Your task to perform on an android device: Open accessibility settings Image 0: 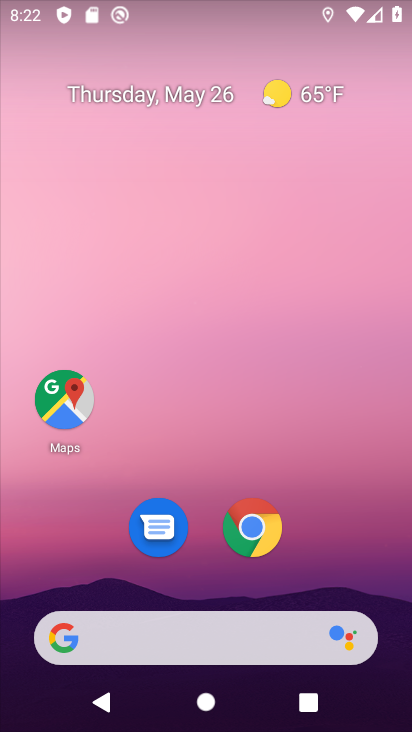
Step 0: drag from (288, 542) to (210, 17)
Your task to perform on an android device: Open accessibility settings Image 1: 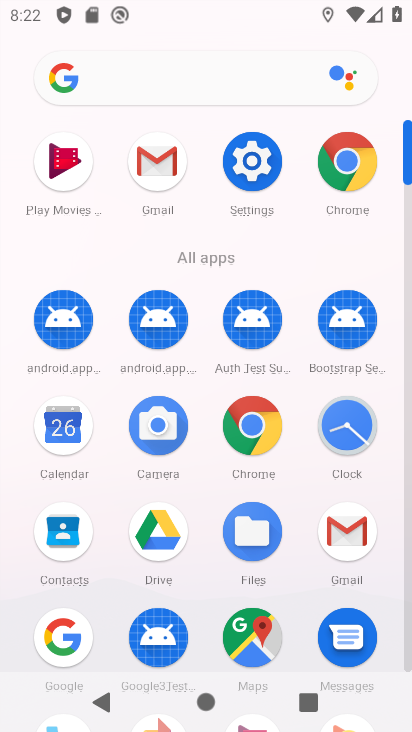
Step 1: click (249, 177)
Your task to perform on an android device: Open accessibility settings Image 2: 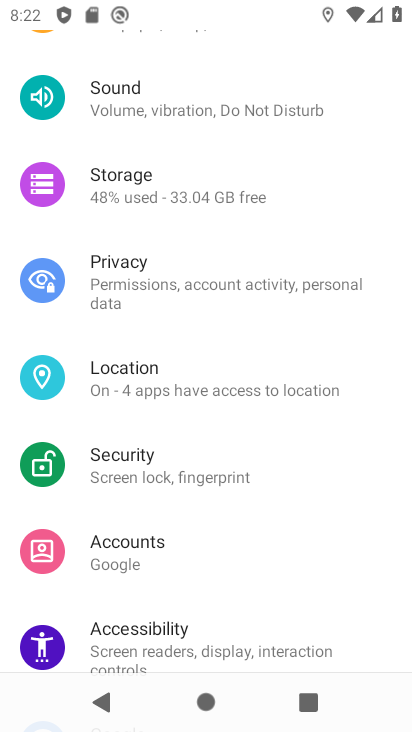
Step 2: drag from (212, 593) to (244, 247)
Your task to perform on an android device: Open accessibility settings Image 3: 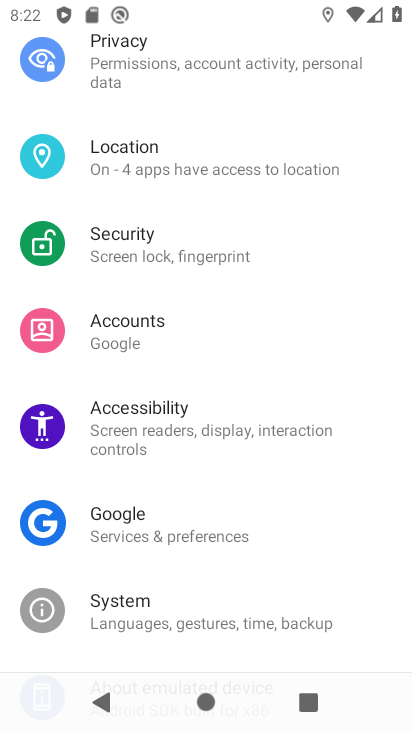
Step 3: click (174, 418)
Your task to perform on an android device: Open accessibility settings Image 4: 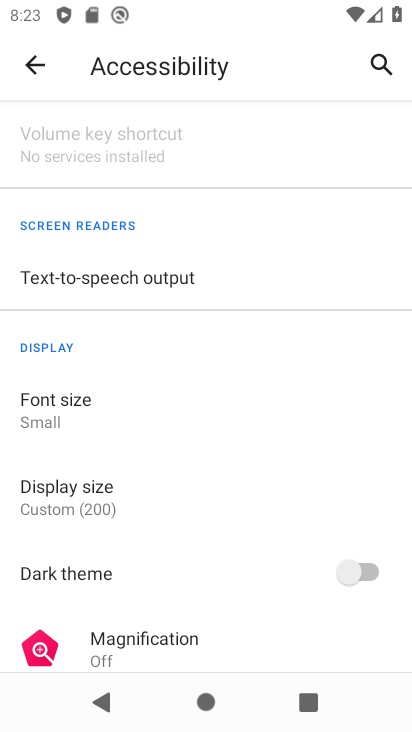
Step 4: task complete